Your task to perform on an android device: allow cookies in the chrome app Image 0: 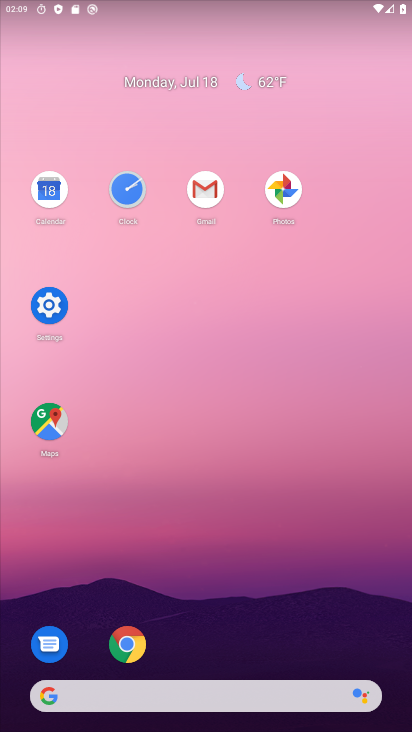
Step 0: click (121, 646)
Your task to perform on an android device: allow cookies in the chrome app Image 1: 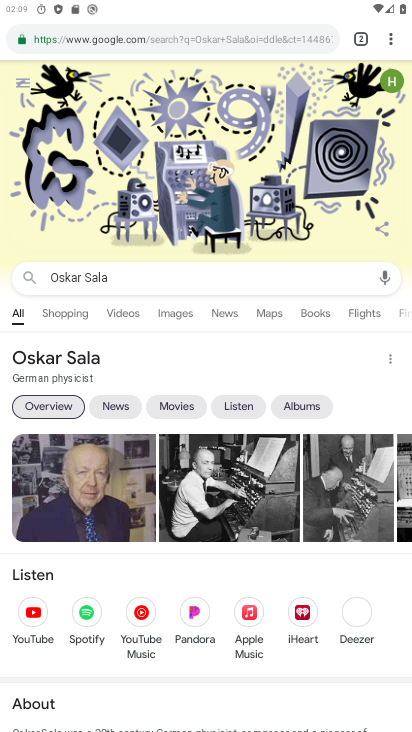
Step 1: click (390, 38)
Your task to perform on an android device: allow cookies in the chrome app Image 2: 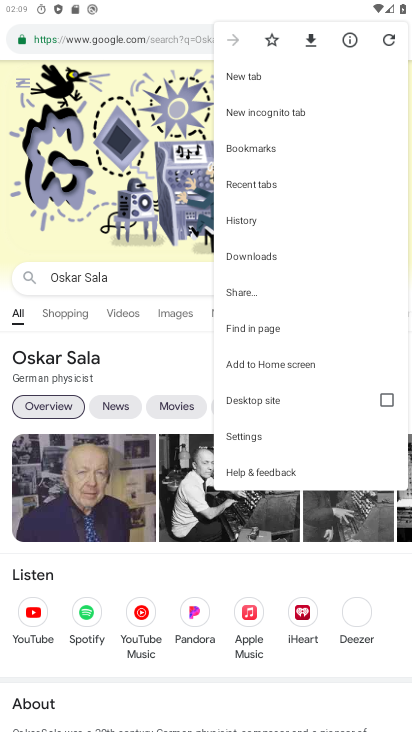
Step 2: click (291, 440)
Your task to perform on an android device: allow cookies in the chrome app Image 3: 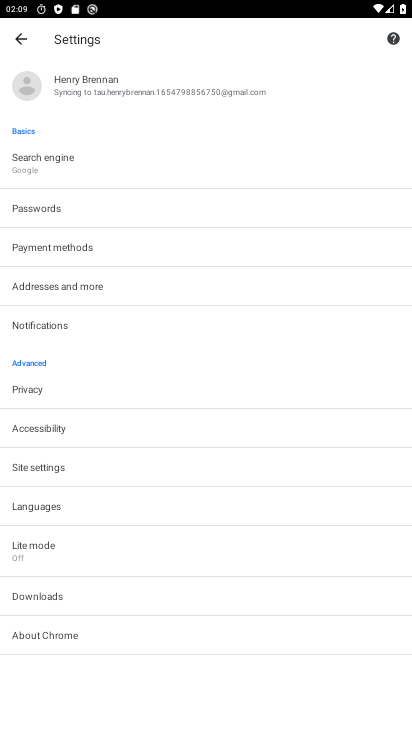
Step 3: click (119, 473)
Your task to perform on an android device: allow cookies in the chrome app Image 4: 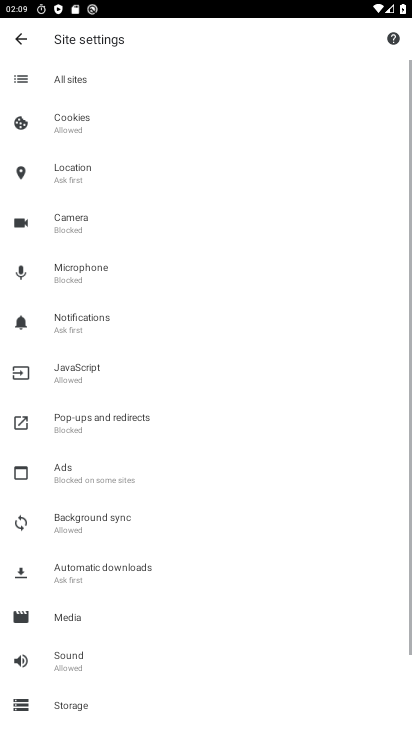
Step 4: click (326, 113)
Your task to perform on an android device: allow cookies in the chrome app Image 5: 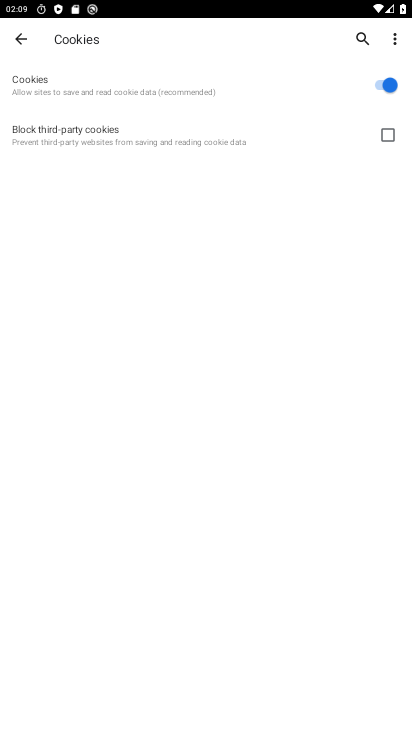
Step 5: task complete